Your task to perform on an android device: turn on airplane mode Image 0: 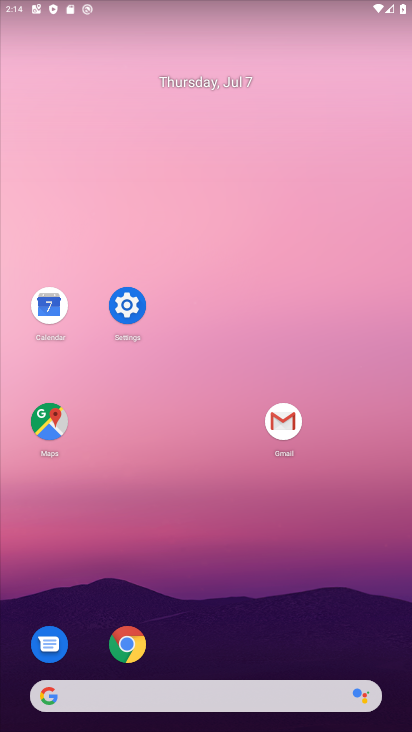
Step 0: drag from (404, 700) to (285, 134)
Your task to perform on an android device: turn on airplane mode Image 1: 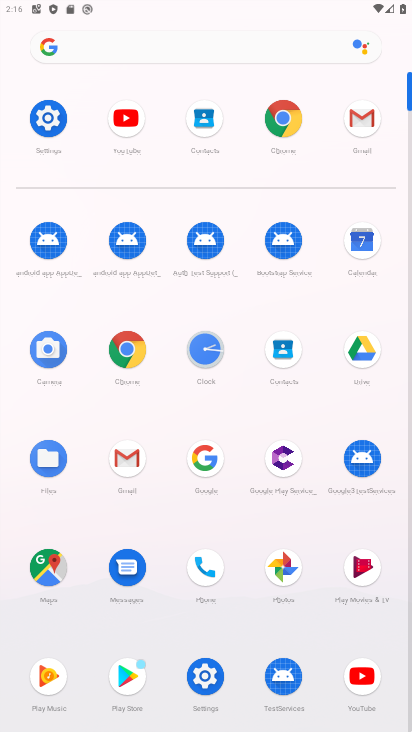
Step 1: click (44, 106)
Your task to perform on an android device: turn on airplane mode Image 2: 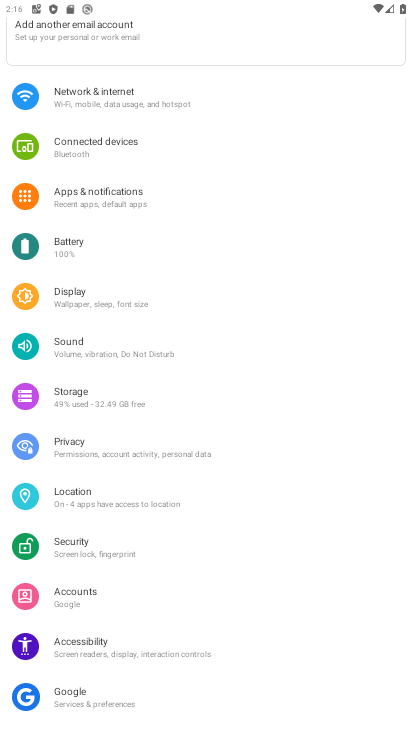
Step 2: click (116, 102)
Your task to perform on an android device: turn on airplane mode Image 3: 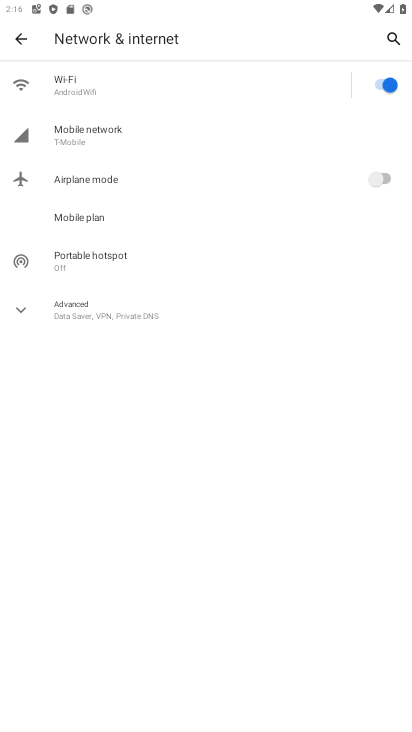
Step 3: click (368, 173)
Your task to perform on an android device: turn on airplane mode Image 4: 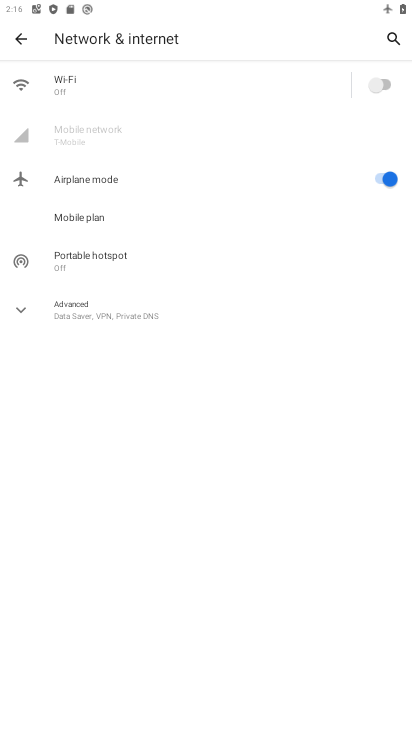
Step 4: task complete